Your task to perform on an android device: Open ESPN.com Image 0: 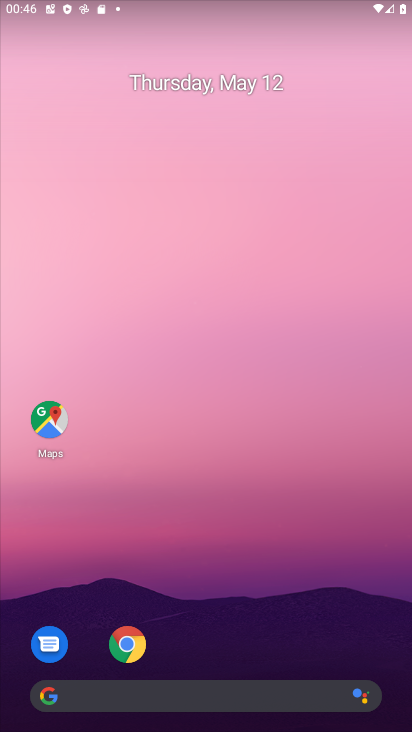
Step 0: click (120, 652)
Your task to perform on an android device: Open ESPN.com Image 1: 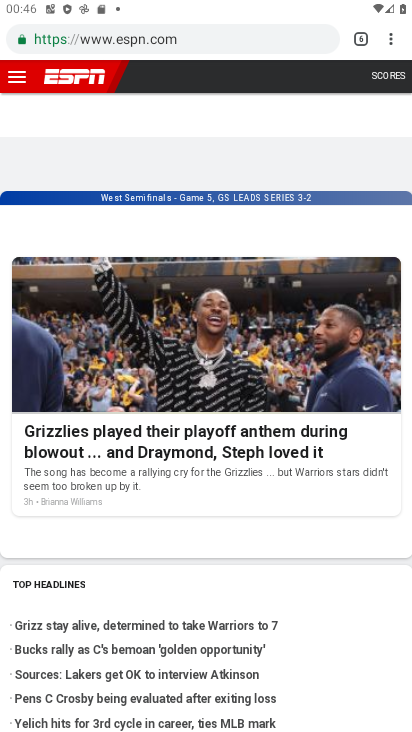
Step 1: task complete